Your task to perform on an android device: Go to Reddit.com Image 0: 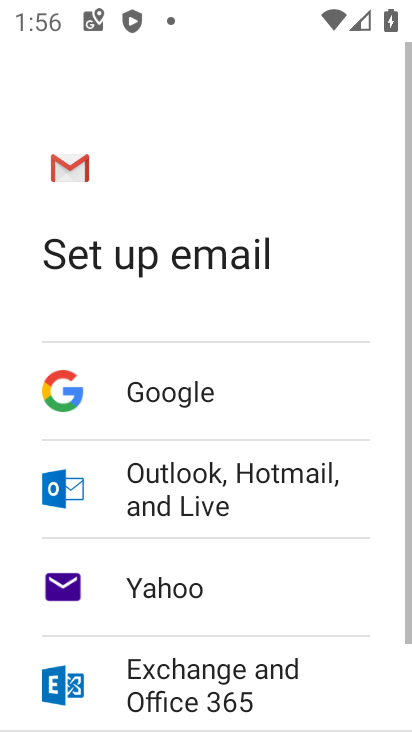
Step 0: press home button
Your task to perform on an android device: Go to Reddit.com Image 1: 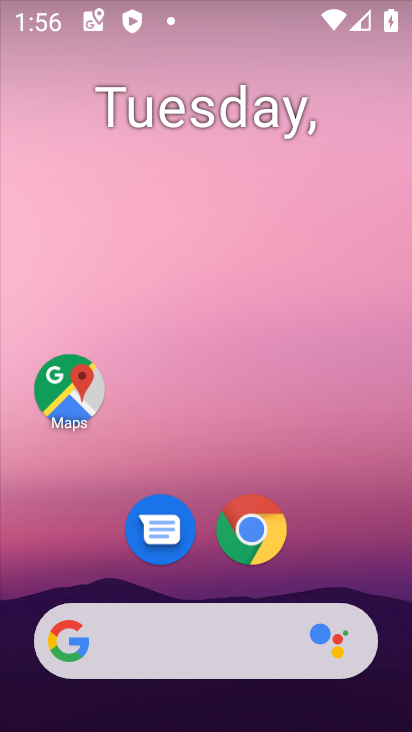
Step 1: drag from (201, 516) to (220, 122)
Your task to perform on an android device: Go to Reddit.com Image 2: 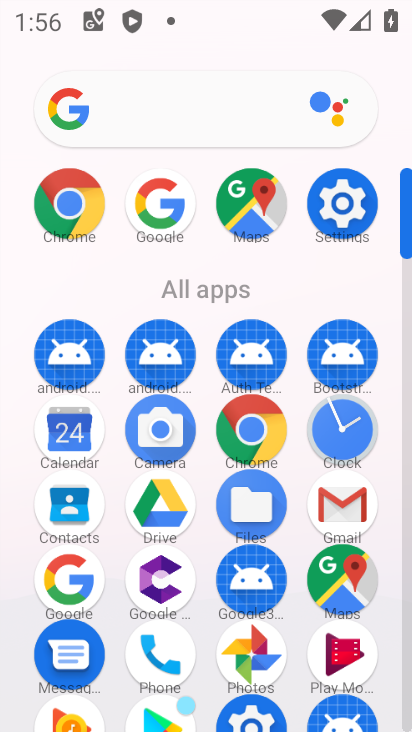
Step 2: click (154, 208)
Your task to perform on an android device: Go to Reddit.com Image 3: 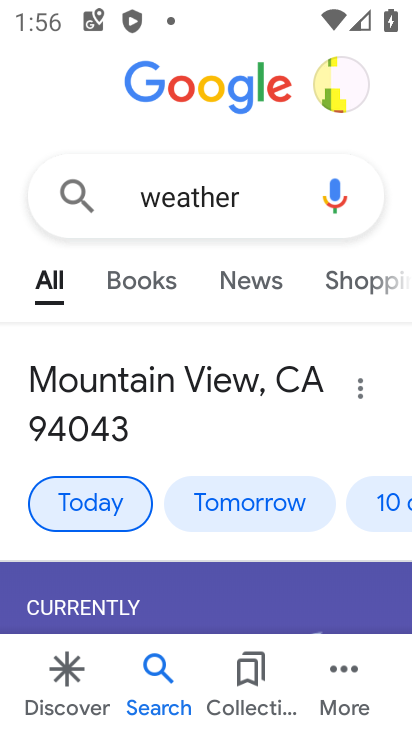
Step 3: click (278, 196)
Your task to perform on an android device: Go to Reddit.com Image 4: 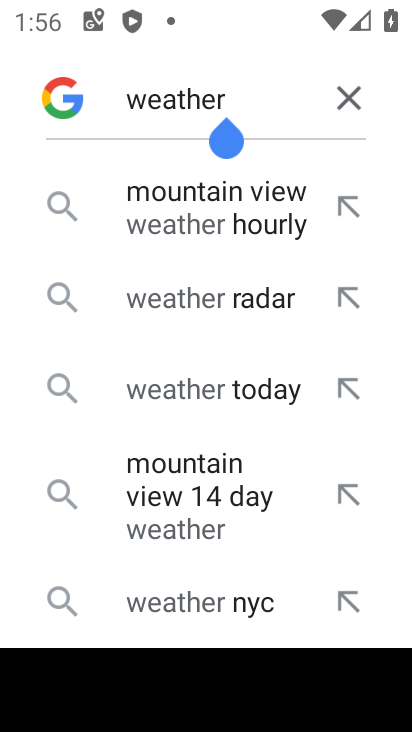
Step 4: click (357, 104)
Your task to perform on an android device: Go to Reddit.com Image 5: 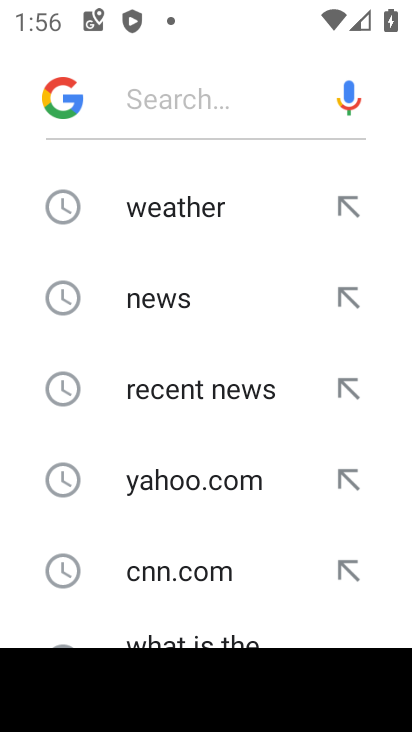
Step 5: type "reddit.com"
Your task to perform on an android device: Go to Reddit.com Image 6: 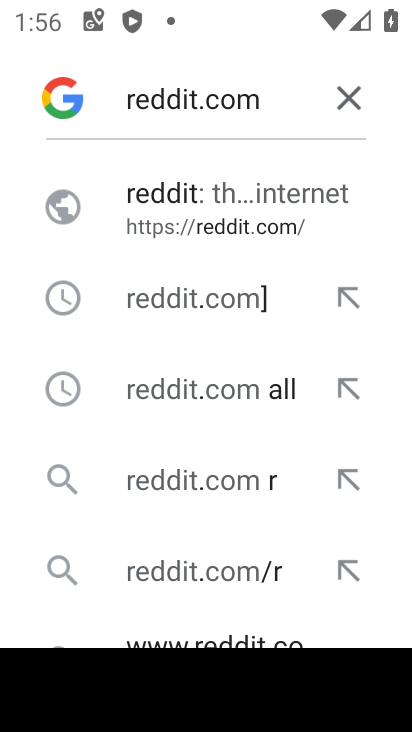
Step 6: click (271, 195)
Your task to perform on an android device: Go to Reddit.com Image 7: 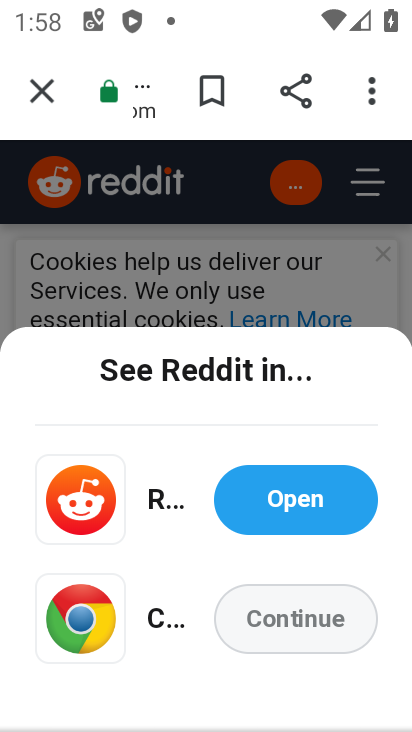
Step 7: task complete